Your task to perform on an android device: Open calendar and show me the fourth week of next month Image 0: 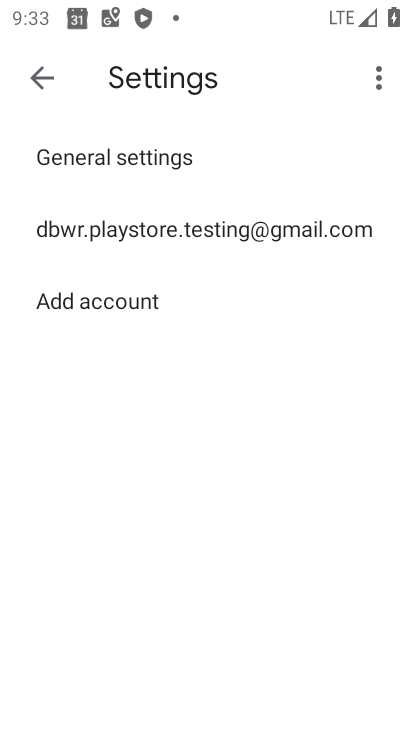
Step 0: press back button
Your task to perform on an android device: Open calendar and show me the fourth week of next month Image 1: 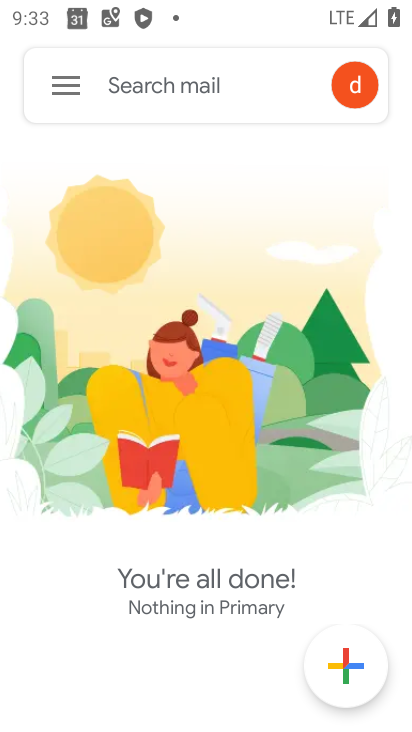
Step 1: press home button
Your task to perform on an android device: Open calendar and show me the fourth week of next month Image 2: 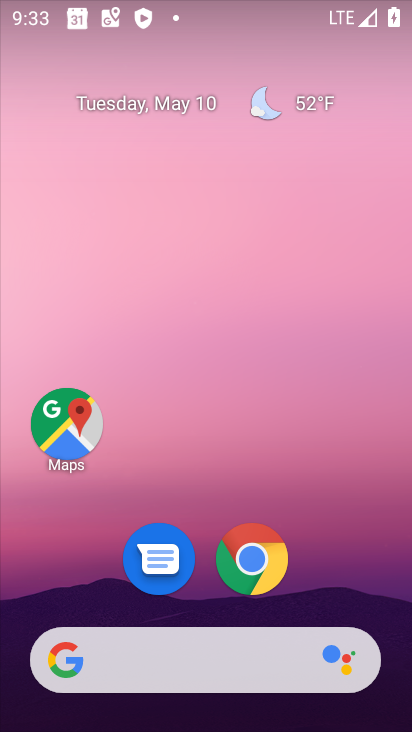
Step 2: drag from (331, 502) to (244, 50)
Your task to perform on an android device: Open calendar and show me the fourth week of next month Image 3: 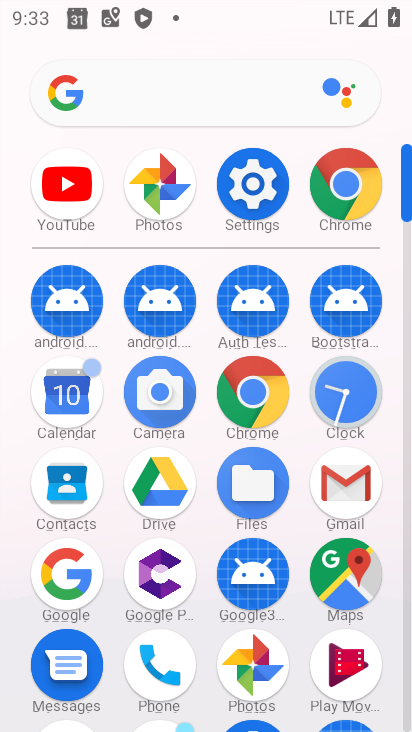
Step 3: drag from (8, 548) to (14, 196)
Your task to perform on an android device: Open calendar and show me the fourth week of next month Image 4: 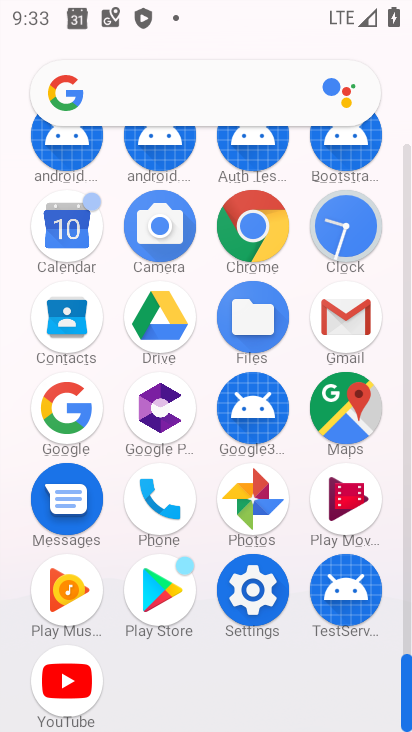
Step 4: click (61, 219)
Your task to perform on an android device: Open calendar and show me the fourth week of next month Image 5: 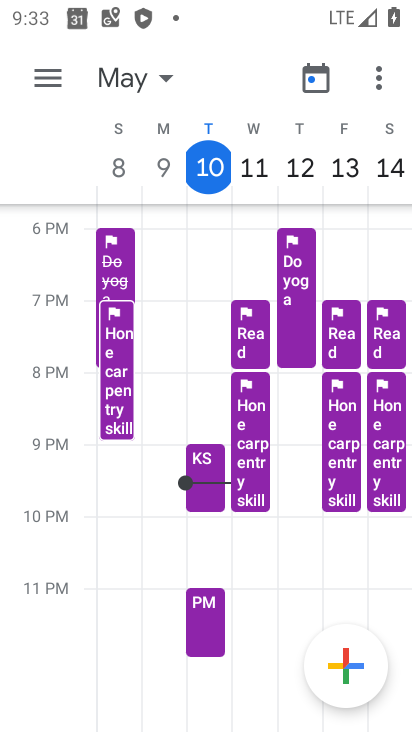
Step 5: click (124, 80)
Your task to perform on an android device: Open calendar and show me the fourth week of next month Image 6: 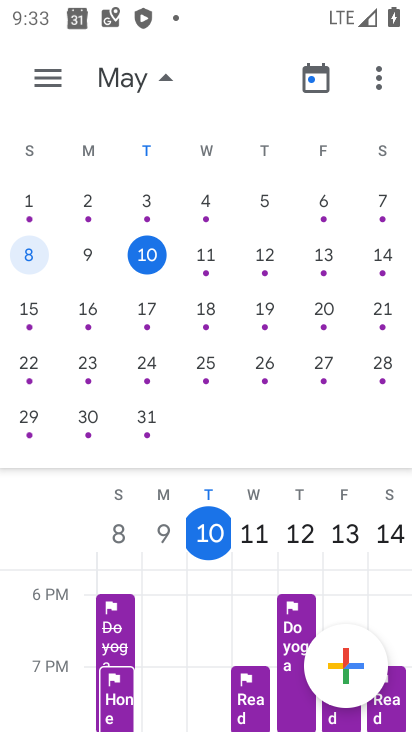
Step 6: drag from (357, 317) to (1, 317)
Your task to perform on an android device: Open calendar and show me the fourth week of next month Image 7: 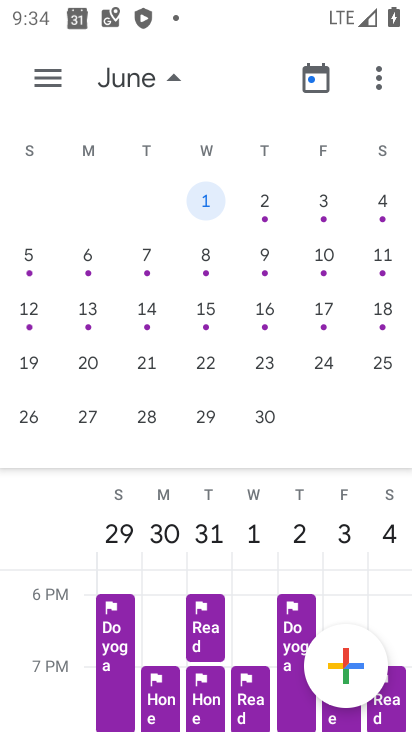
Step 7: click (26, 360)
Your task to perform on an android device: Open calendar and show me the fourth week of next month Image 8: 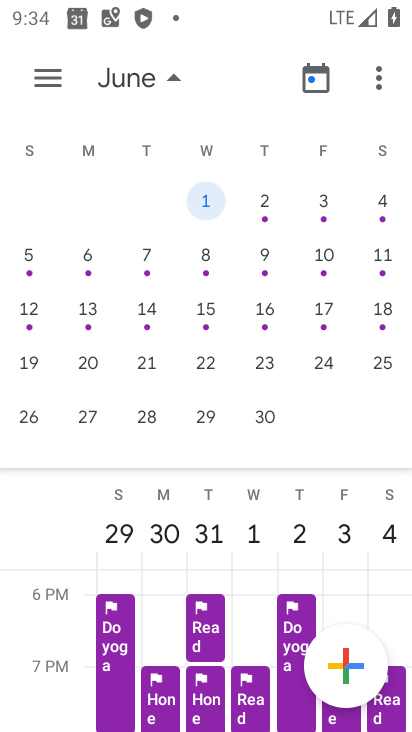
Step 8: click (26, 360)
Your task to perform on an android device: Open calendar and show me the fourth week of next month Image 9: 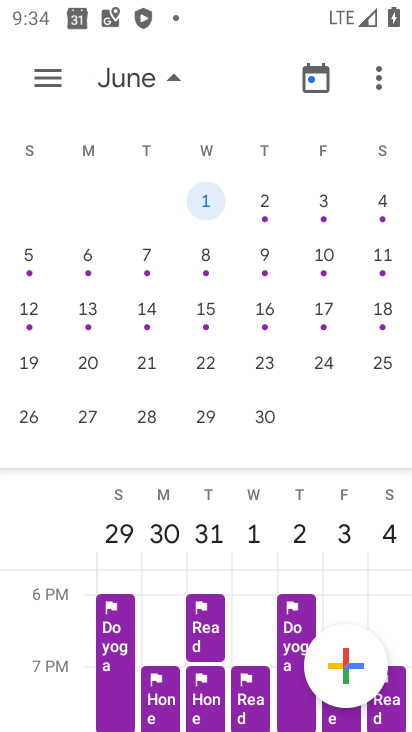
Step 9: click (26, 360)
Your task to perform on an android device: Open calendar and show me the fourth week of next month Image 10: 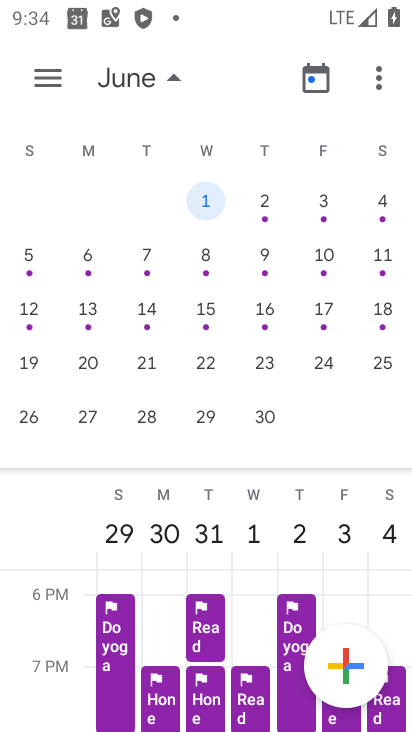
Step 10: click (29, 362)
Your task to perform on an android device: Open calendar and show me the fourth week of next month Image 11: 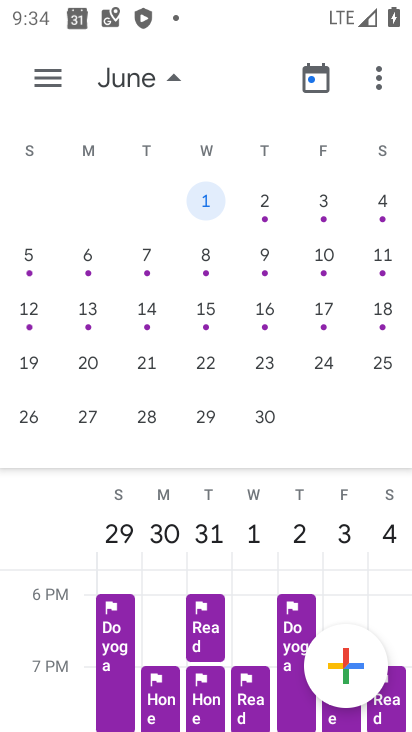
Step 11: click (37, 360)
Your task to perform on an android device: Open calendar and show me the fourth week of next month Image 12: 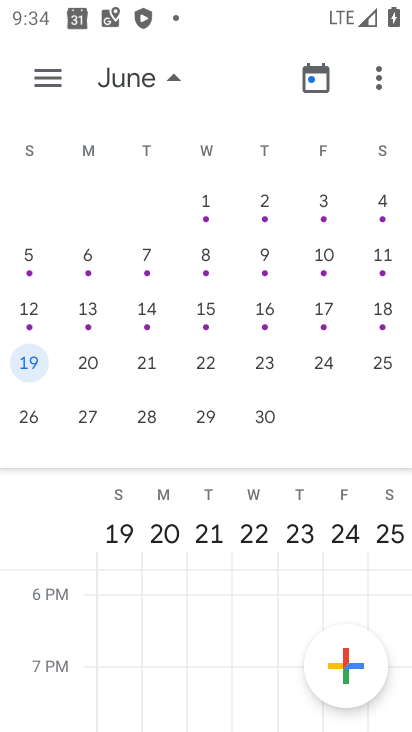
Step 12: click (44, 70)
Your task to perform on an android device: Open calendar and show me the fourth week of next month Image 13: 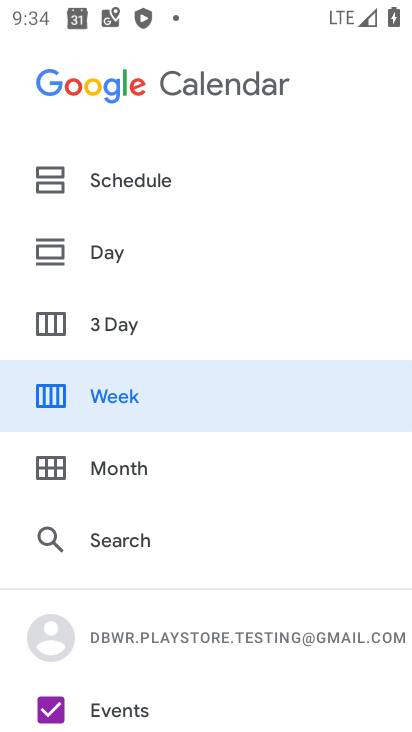
Step 13: click (145, 401)
Your task to perform on an android device: Open calendar and show me the fourth week of next month Image 14: 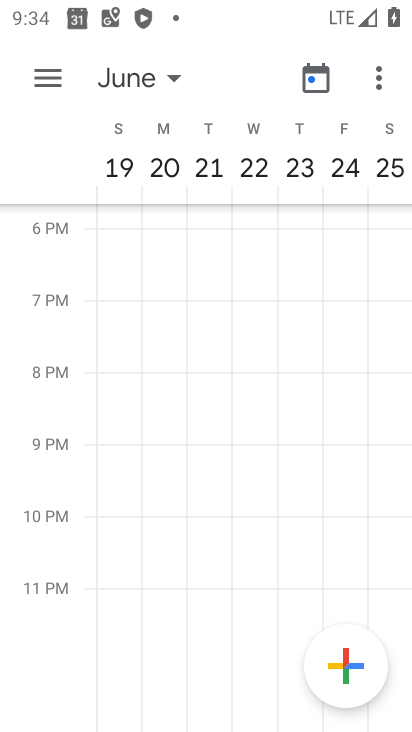
Step 14: task complete